Your task to perform on an android device: turn on location history Image 0: 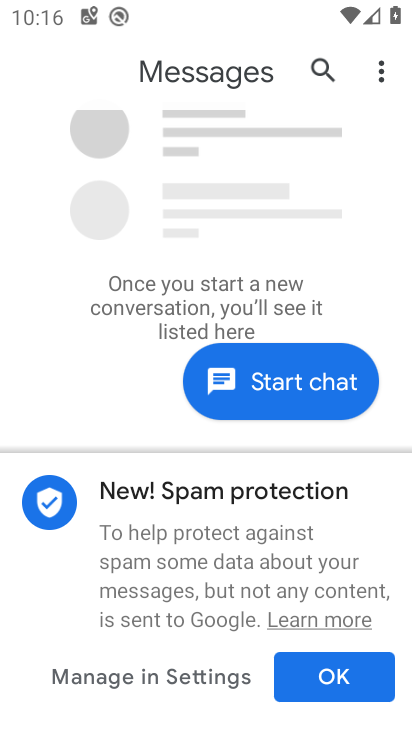
Step 0: drag from (201, 566) to (276, 147)
Your task to perform on an android device: turn on location history Image 1: 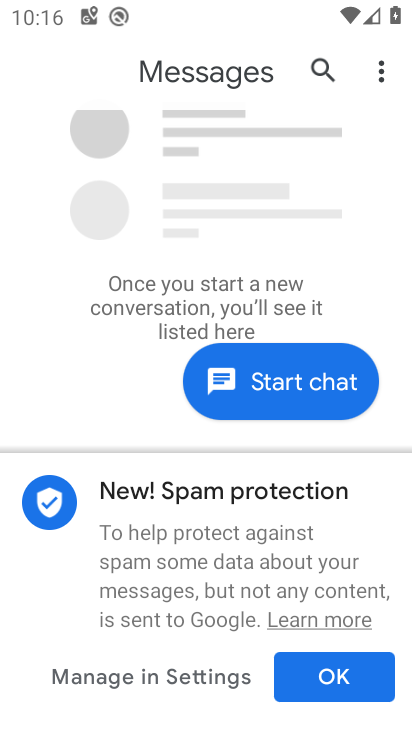
Step 1: press home button
Your task to perform on an android device: turn on location history Image 2: 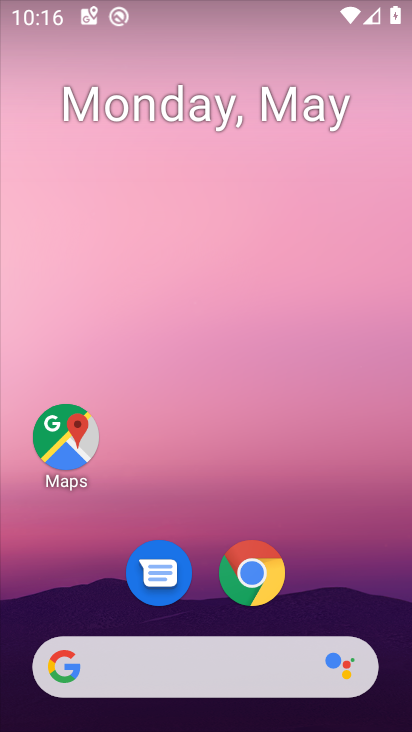
Step 2: drag from (225, 543) to (311, 41)
Your task to perform on an android device: turn on location history Image 3: 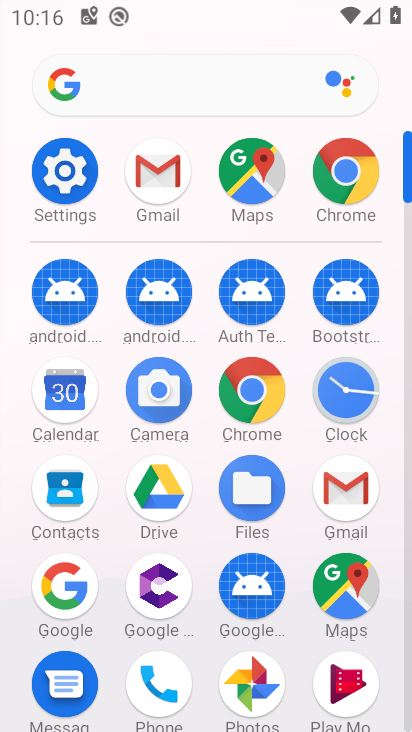
Step 3: click (55, 160)
Your task to perform on an android device: turn on location history Image 4: 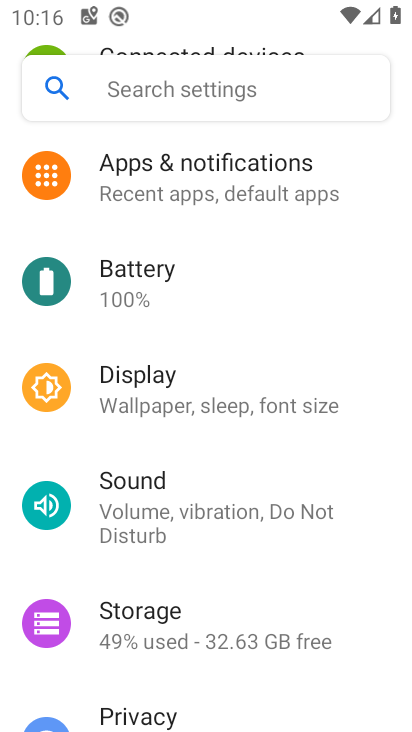
Step 4: drag from (182, 632) to (253, 148)
Your task to perform on an android device: turn on location history Image 5: 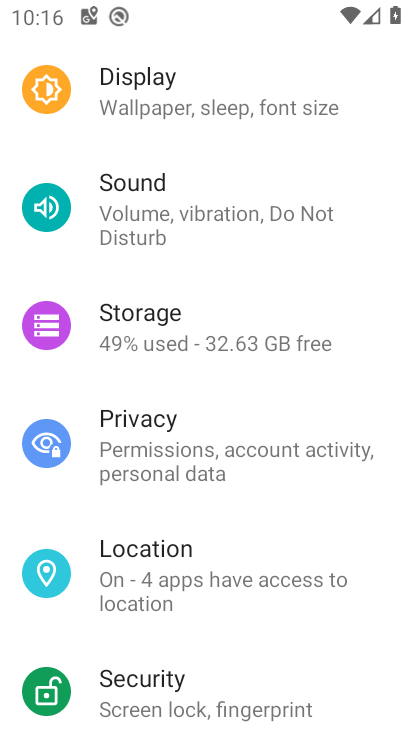
Step 5: click (193, 576)
Your task to perform on an android device: turn on location history Image 6: 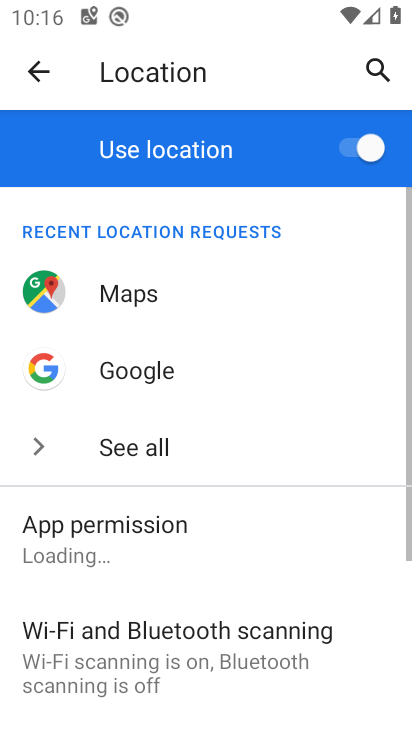
Step 6: drag from (185, 635) to (246, 161)
Your task to perform on an android device: turn on location history Image 7: 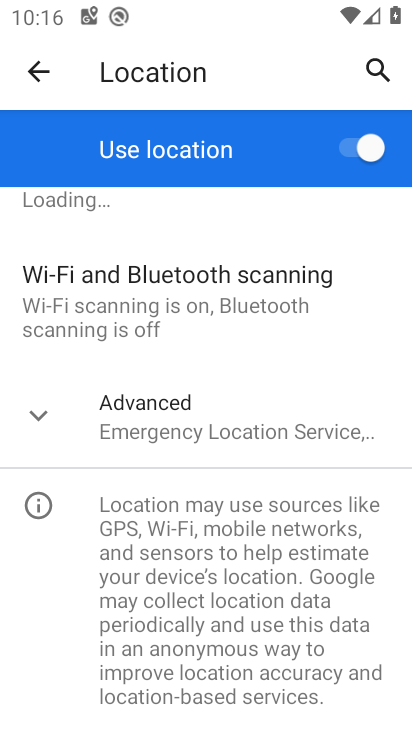
Step 7: click (213, 435)
Your task to perform on an android device: turn on location history Image 8: 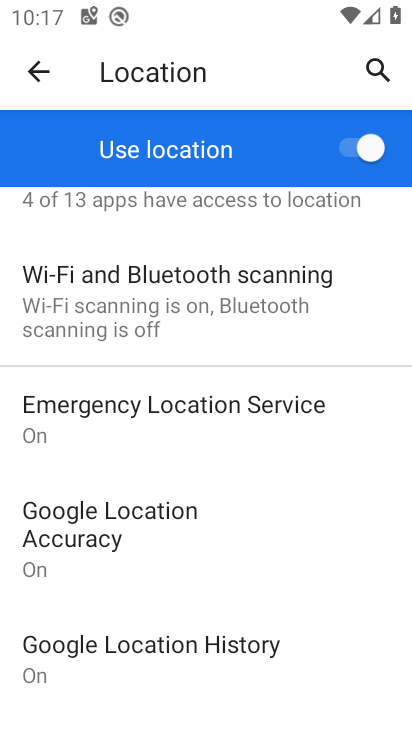
Step 8: click (134, 642)
Your task to perform on an android device: turn on location history Image 9: 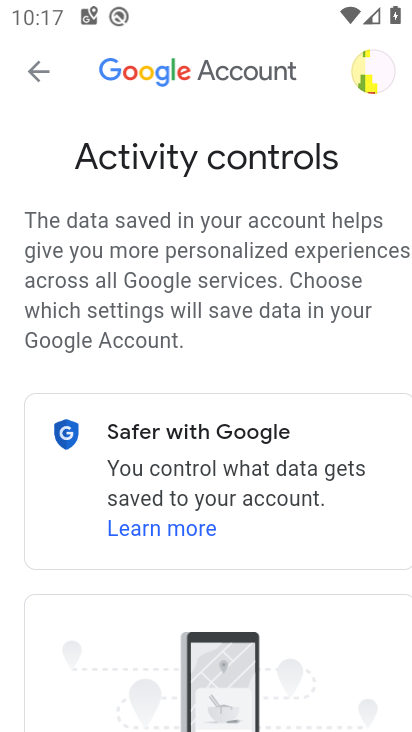
Step 9: drag from (197, 556) to (226, 167)
Your task to perform on an android device: turn on location history Image 10: 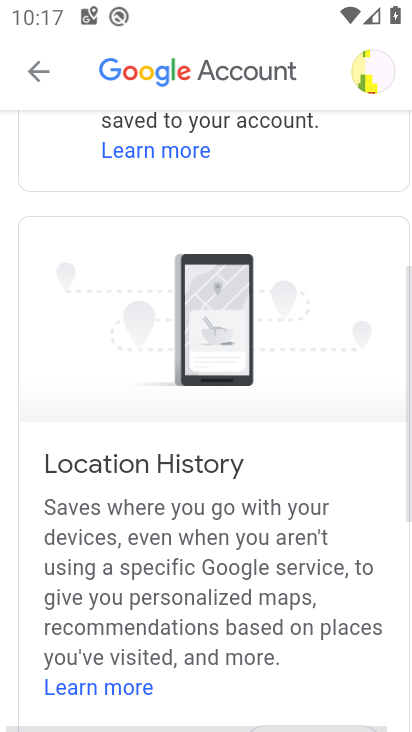
Step 10: drag from (221, 589) to (190, 143)
Your task to perform on an android device: turn on location history Image 11: 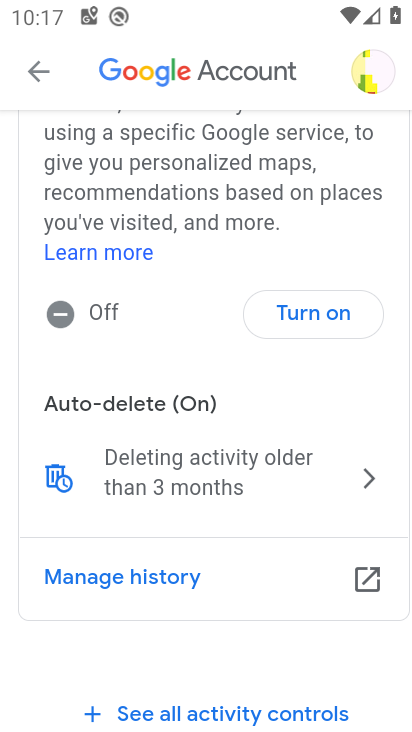
Step 11: click (293, 312)
Your task to perform on an android device: turn on location history Image 12: 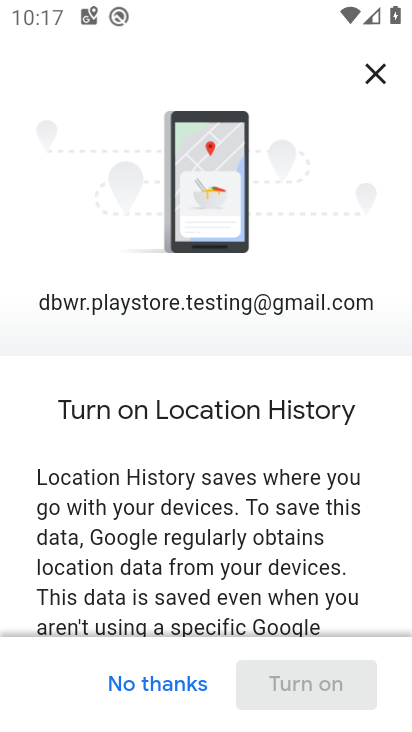
Step 12: drag from (231, 537) to (254, 30)
Your task to perform on an android device: turn on location history Image 13: 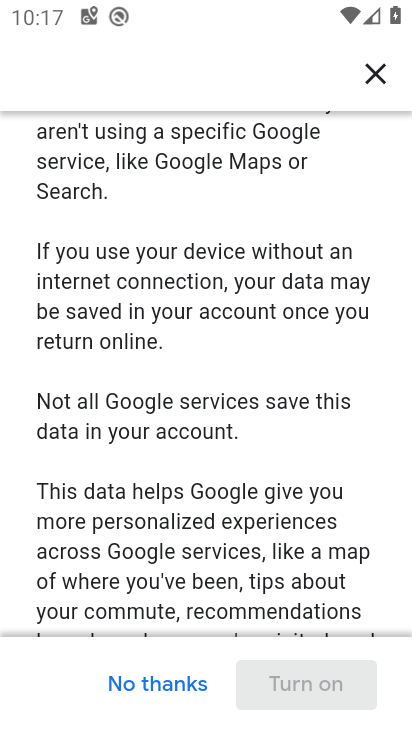
Step 13: drag from (187, 525) to (262, 12)
Your task to perform on an android device: turn on location history Image 14: 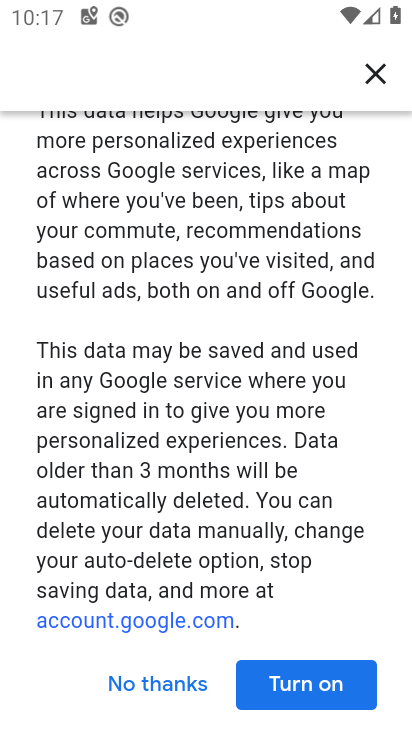
Step 14: click (287, 676)
Your task to perform on an android device: turn on location history Image 15: 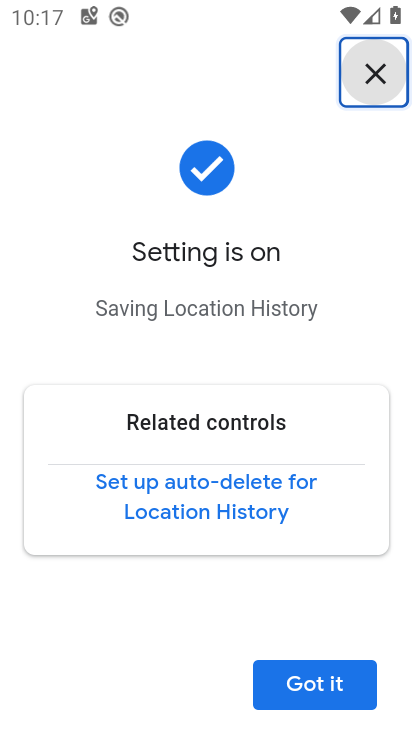
Step 15: click (319, 681)
Your task to perform on an android device: turn on location history Image 16: 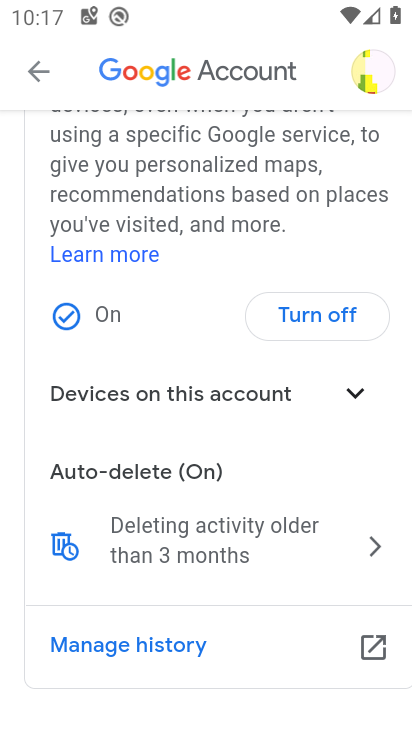
Step 16: task complete